Your task to perform on an android device: What's the weather going to be tomorrow? Image 0: 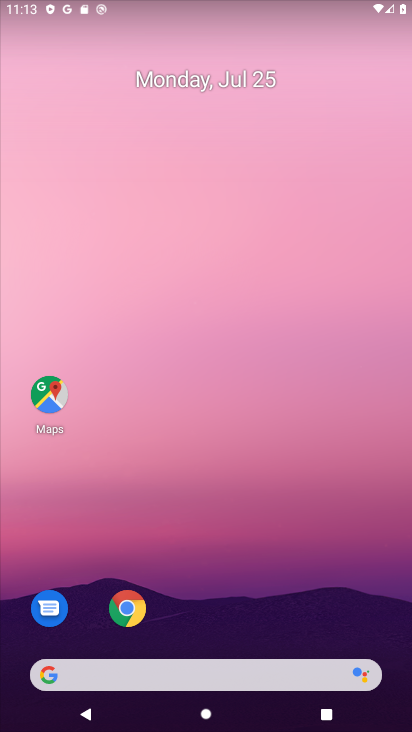
Step 0: click (223, 671)
Your task to perform on an android device: What's the weather going to be tomorrow? Image 1: 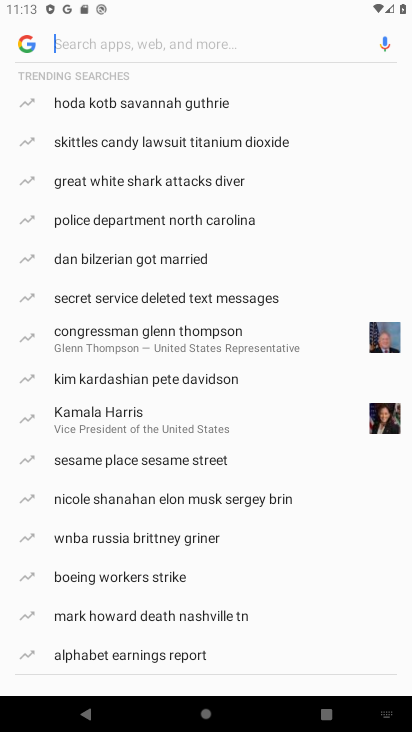
Step 1: click (89, 44)
Your task to perform on an android device: What's the weather going to be tomorrow? Image 2: 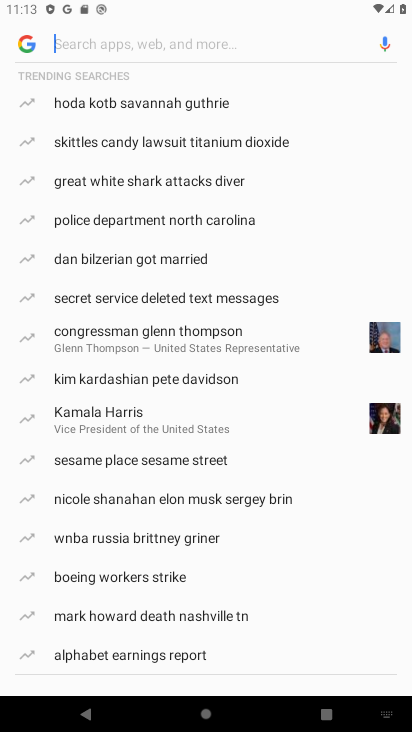
Step 2: type "weather"
Your task to perform on an android device: What's the weather going to be tomorrow? Image 3: 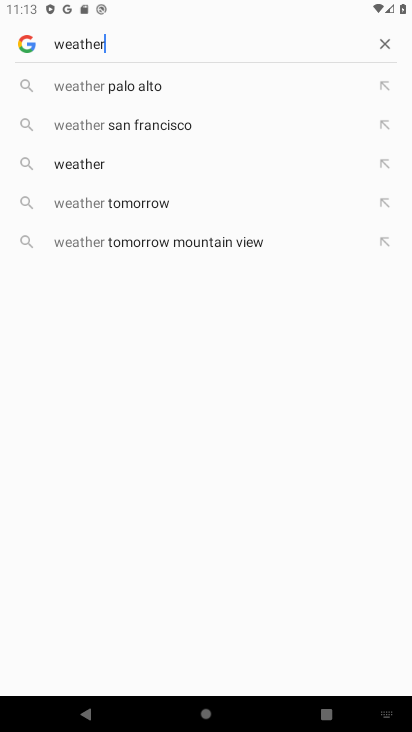
Step 3: click (127, 159)
Your task to perform on an android device: What's the weather going to be tomorrow? Image 4: 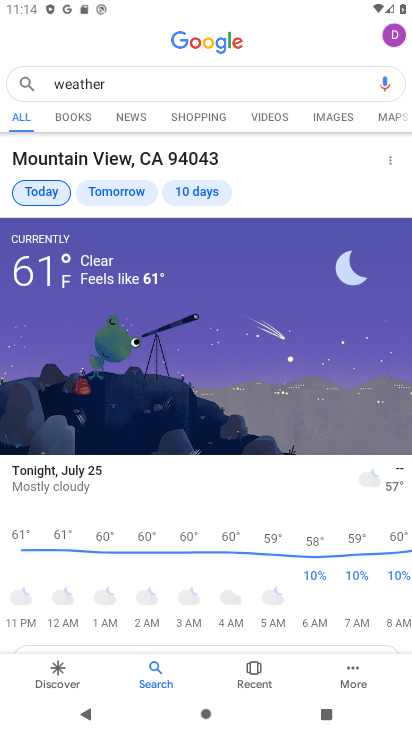
Step 4: task complete